Your task to perform on an android device: add a label to a message in the gmail app Image 0: 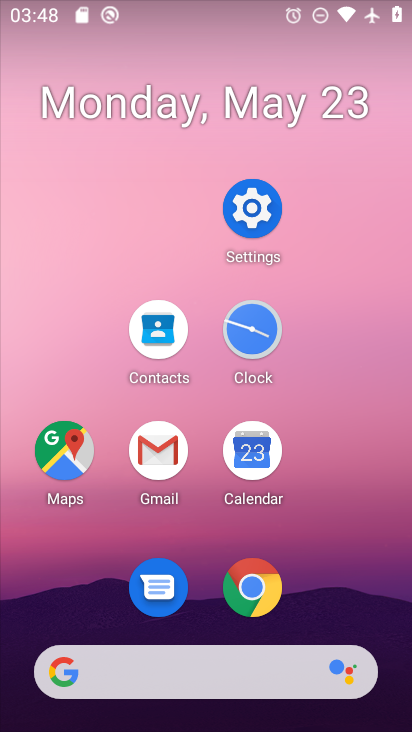
Step 0: click (146, 442)
Your task to perform on an android device: add a label to a message in the gmail app Image 1: 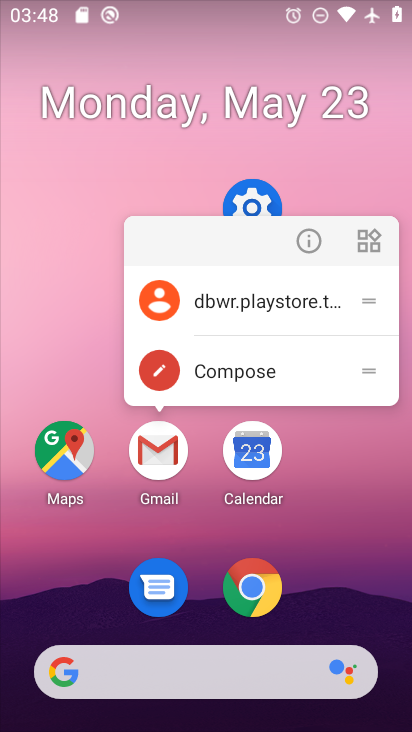
Step 1: click (146, 442)
Your task to perform on an android device: add a label to a message in the gmail app Image 2: 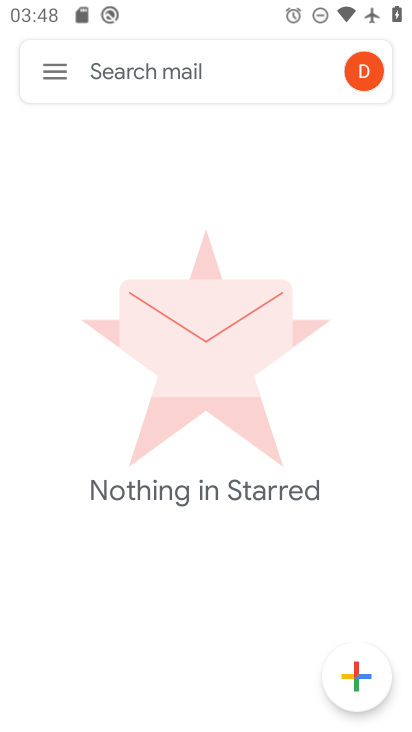
Step 2: click (59, 80)
Your task to perform on an android device: add a label to a message in the gmail app Image 3: 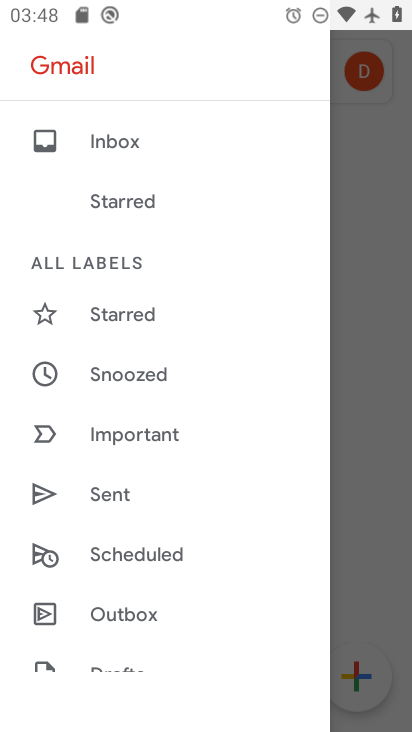
Step 3: drag from (122, 626) to (151, 282)
Your task to perform on an android device: add a label to a message in the gmail app Image 4: 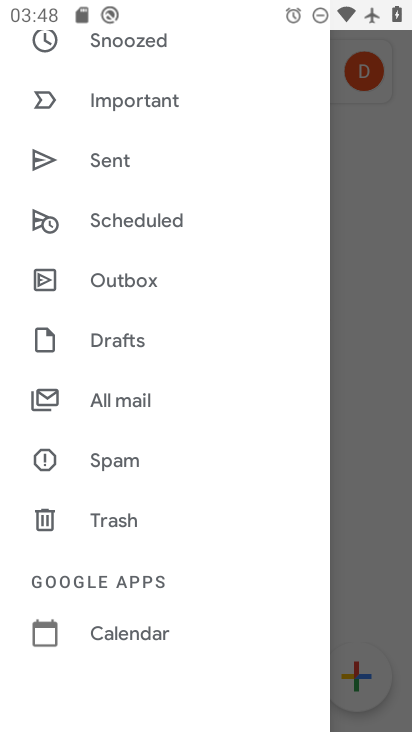
Step 4: click (152, 411)
Your task to perform on an android device: add a label to a message in the gmail app Image 5: 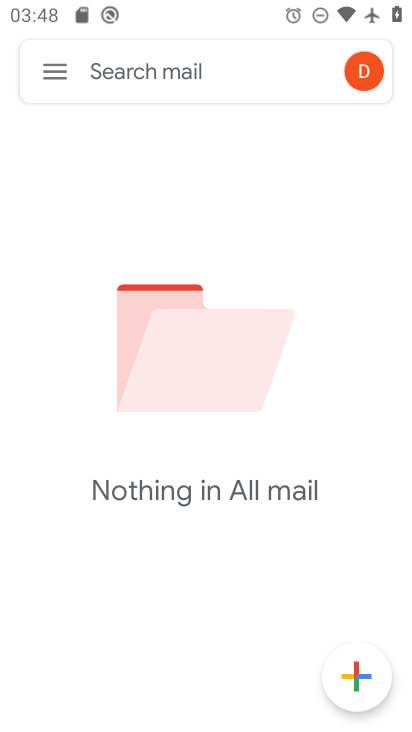
Step 5: task complete